Your task to perform on an android device: choose inbox layout in the gmail app Image 0: 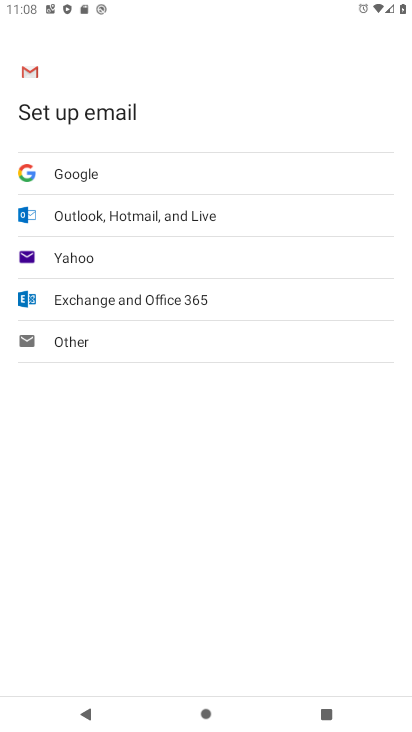
Step 0: press back button
Your task to perform on an android device: choose inbox layout in the gmail app Image 1: 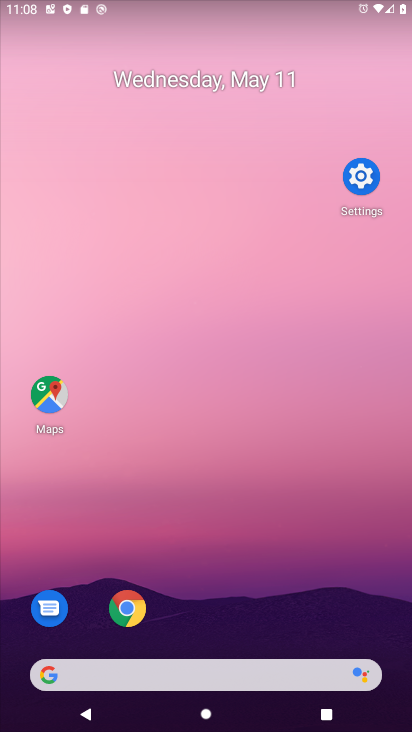
Step 1: drag from (284, 630) to (168, 94)
Your task to perform on an android device: choose inbox layout in the gmail app Image 2: 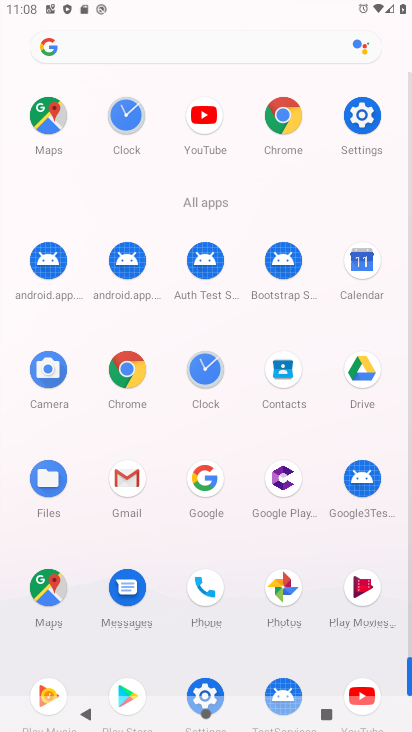
Step 2: click (107, 479)
Your task to perform on an android device: choose inbox layout in the gmail app Image 3: 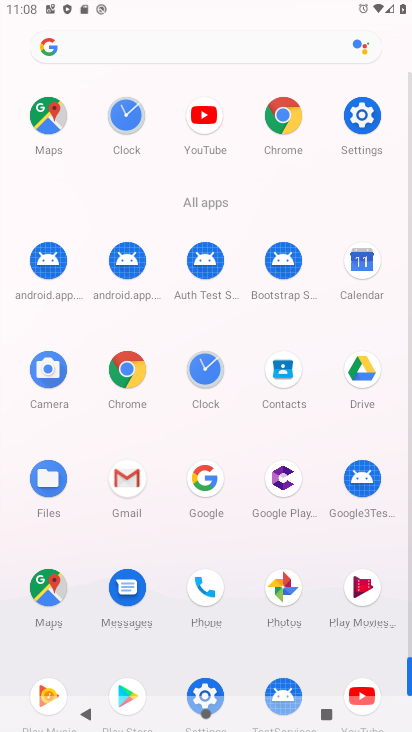
Step 3: click (131, 477)
Your task to perform on an android device: choose inbox layout in the gmail app Image 4: 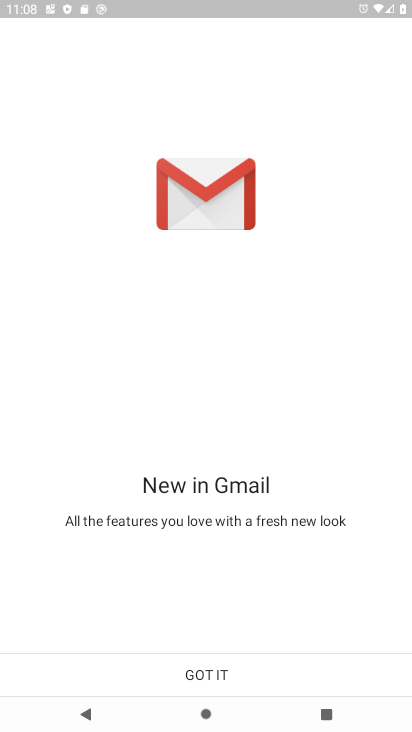
Step 4: click (190, 674)
Your task to perform on an android device: choose inbox layout in the gmail app Image 5: 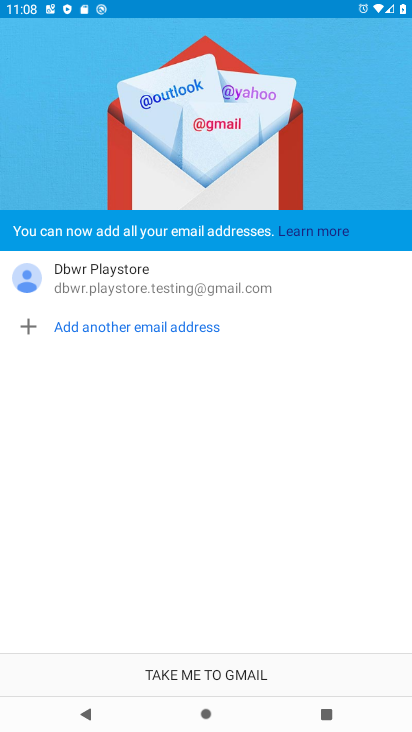
Step 5: click (214, 666)
Your task to perform on an android device: choose inbox layout in the gmail app Image 6: 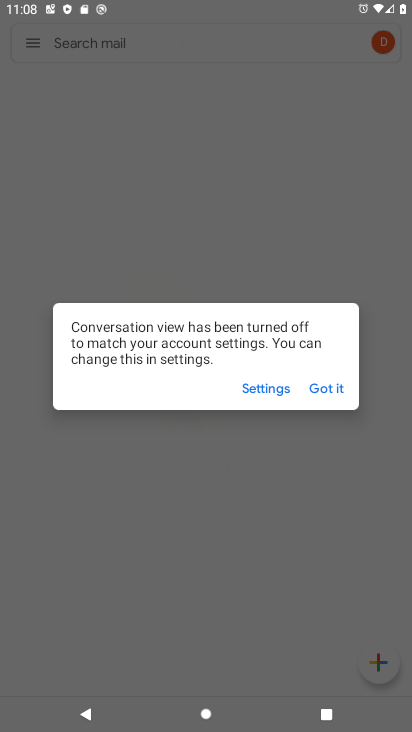
Step 6: click (330, 397)
Your task to perform on an android device: choose inbox layout in the gmail app Image 7: 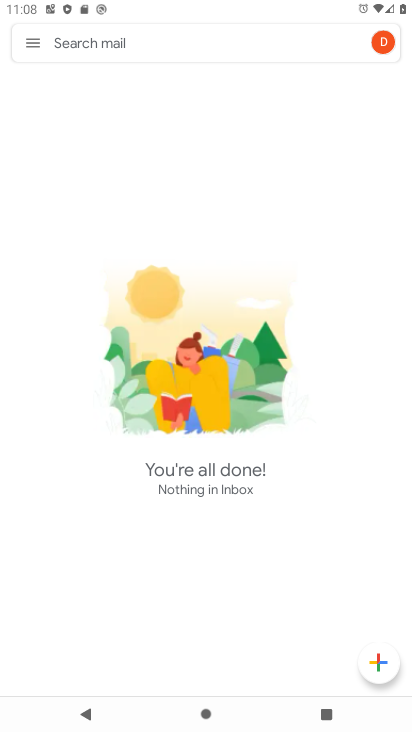
Step 7: click (30, 41)
Your task to perform on an android device: choose inbox layout in the gmail app Image 8: 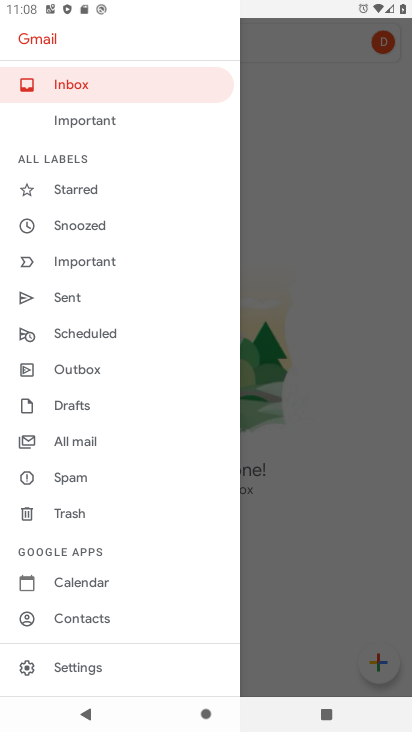
Step 8: click (66, 436)
Your task to perform on an android device: choose inbox layout in the gmail app Image 9: 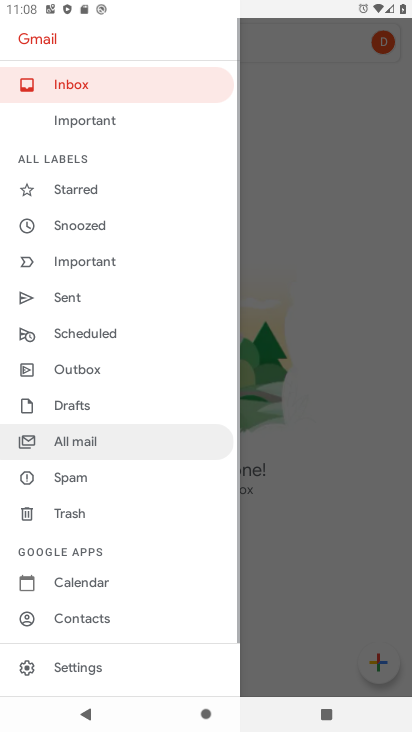
Step 9: click (66, 436)
Your task to perform on an android device: choose inbox layout in the gmail app Image 10: 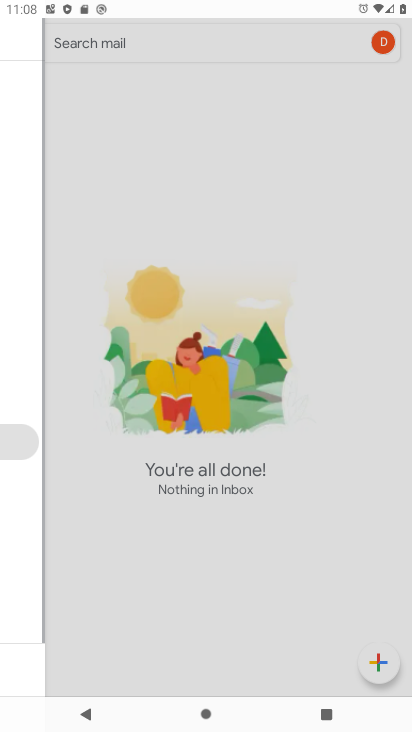
Step 10: click (66, 436)
Your task to perform on an android device: choose inbox layout in the gmail app Image 11: 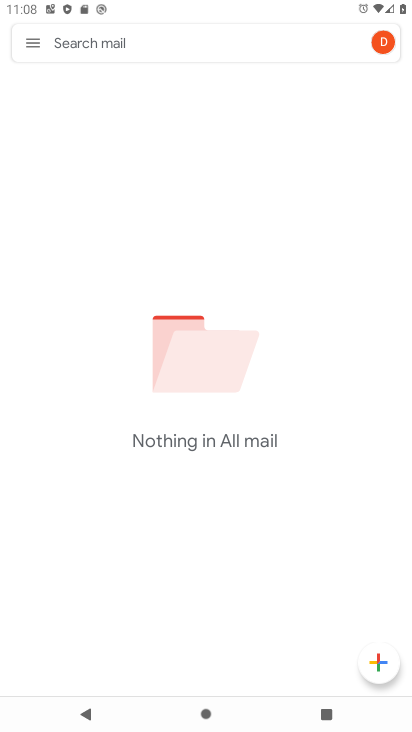
Step 11: task complete